Your task to perform on an android device: change the clock display to digital Image 0: 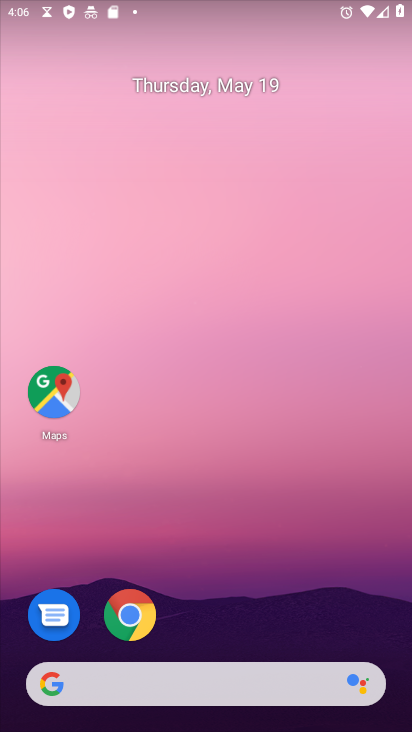
Step 0: drag from (255, 690) to (408, 504)
Your task to perform on an android device: change the clock display to digital Image 1: 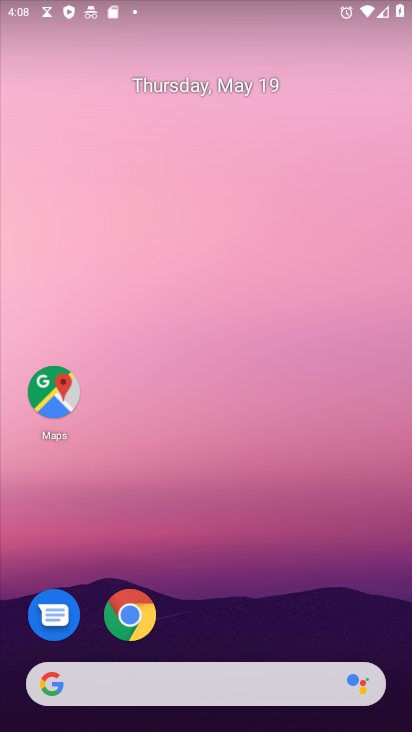
Step 1: drag from (240, 445) to (190, 22)
Your task to perform on an android device: change the clock display to digital Image 2: 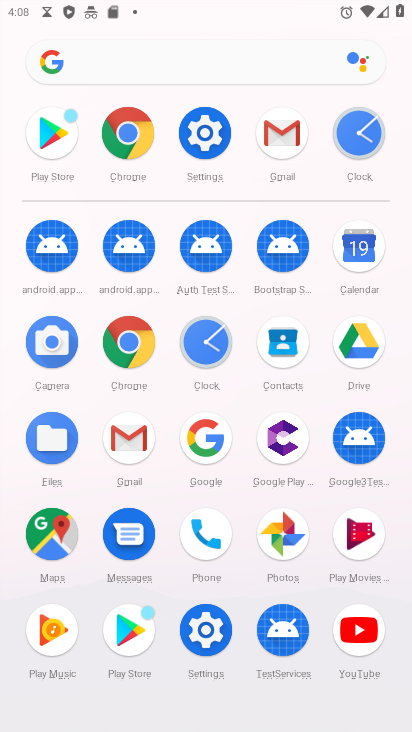
Step 2: click (352, 131)
Your task to perform on an android device: change the clock display to digital Image 3: 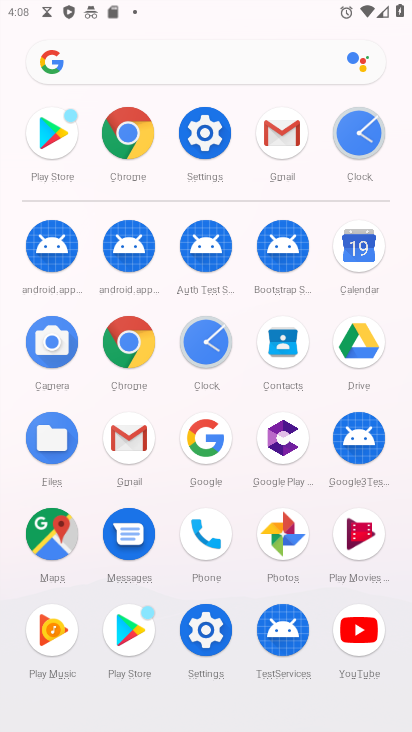
Step 3: click (351, 132)
Your task to perform on an android device: change the clock display to digital Image 4: 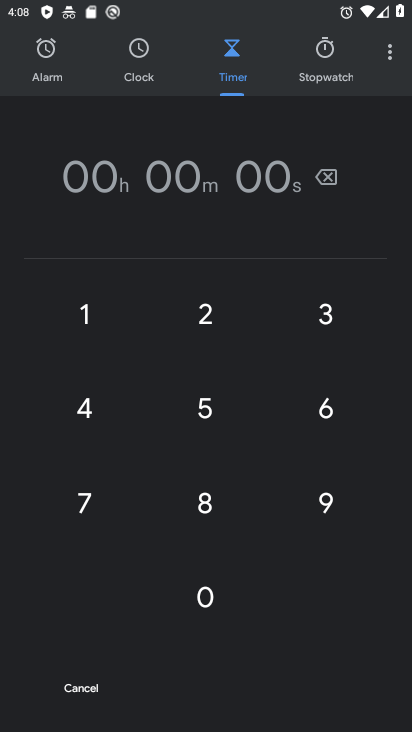
Step 4: click (391, 54)
Your task to perform on an android device: change the clock display to digital Image 5: 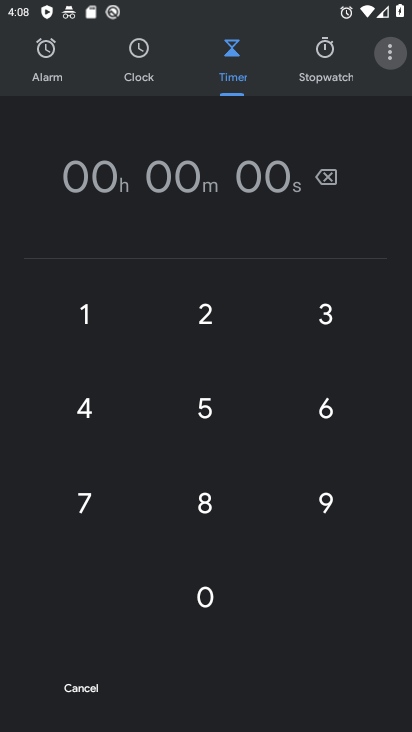
Step 5: click (394, 56)
Your task to perform on an android device: change the clock display to digital Image 6: 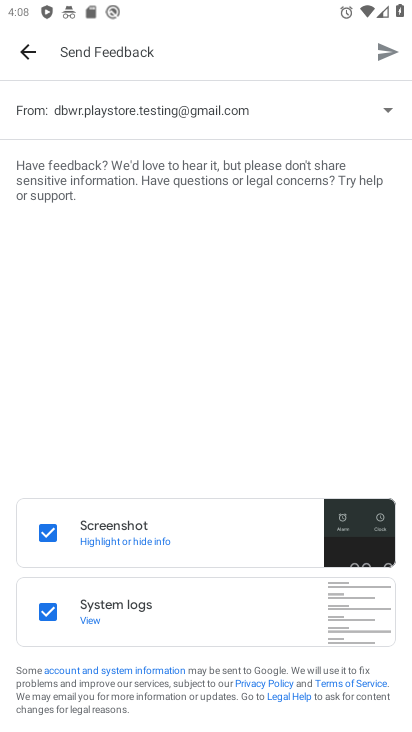
Step 6: click (23, 44)
Your task to perform on an android device: change the clock display to digital Image 7: 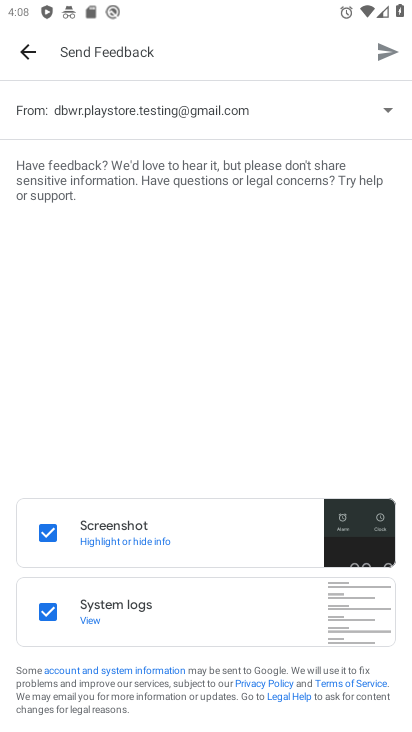
Step 7: click (23, 44)
Your task to perform on an android device: change the clock display to digital Image 8: 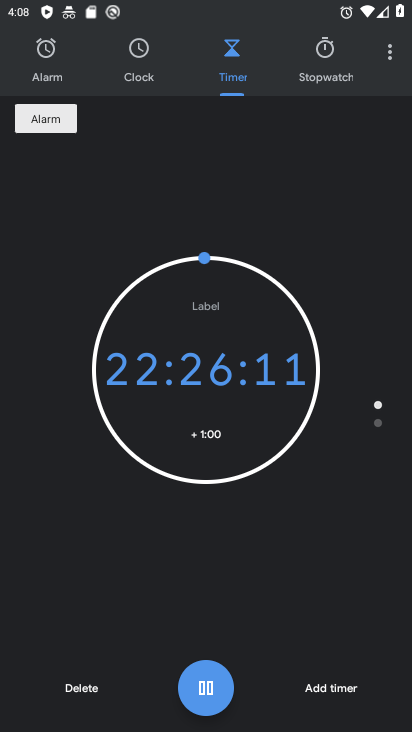
Step 8: click (386, 54)
Your task to perform on an android device: change the clock display to digital Image 9: 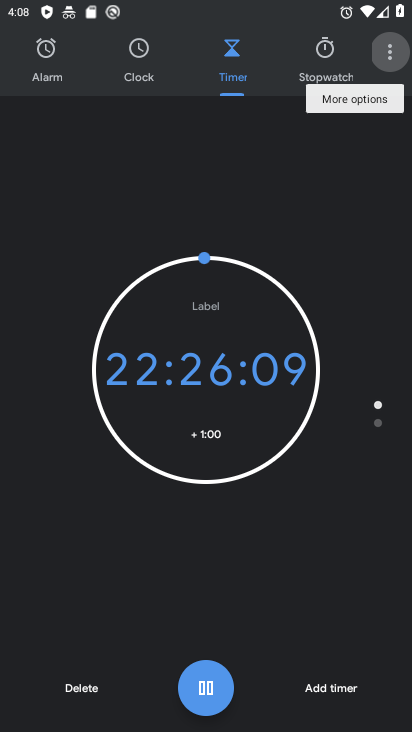
Step 9: click (386, 54)
Your task to perform on an android device: change the clock display to digital Image 10: 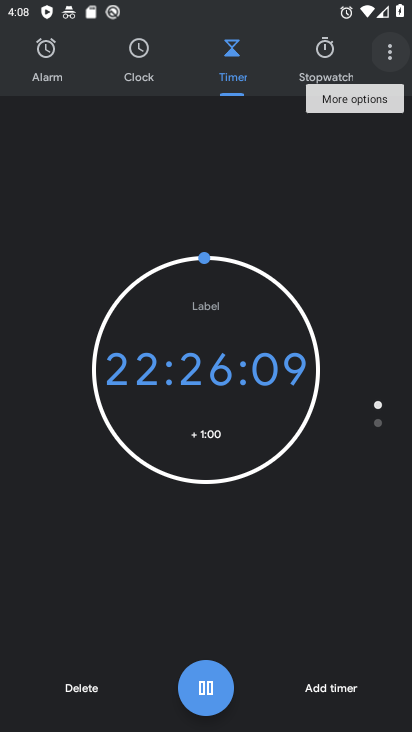
Step 10: click (386, 54)
Your task to perform on an android device: change the clock display to digital Image 11: 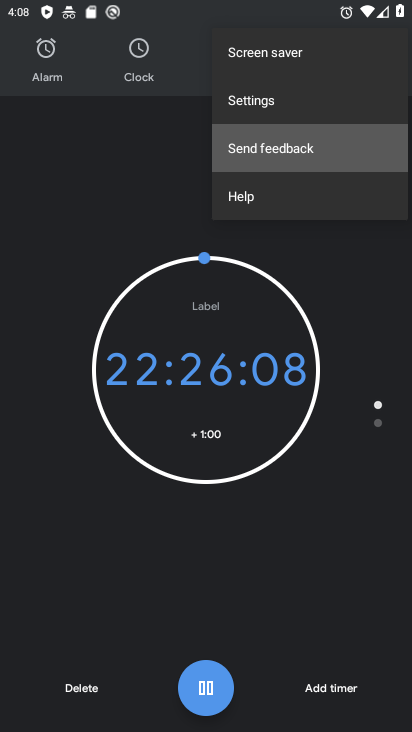
Step 11: click (386, 54)
Your task to perform on an android device: change the clock display to digital Image 12: 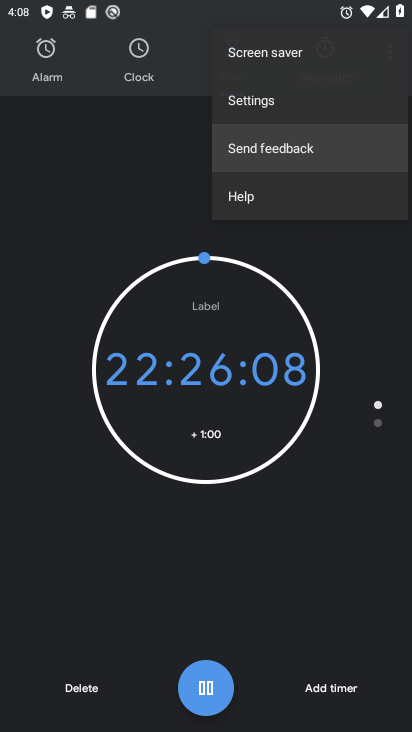
Step 12: drag from (369, 71) to (262, 116)
Your task to perform on an android device: change the clock display to digital Image 13: 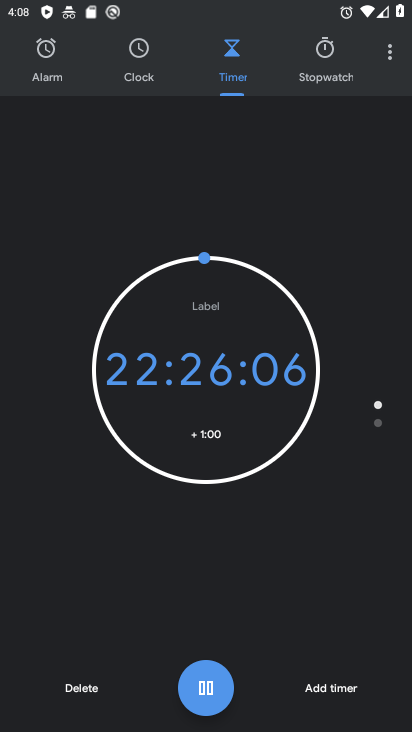
Step 13: click (380, 51)
Your task to perform on an android device: change the clock display to digital Image 14: 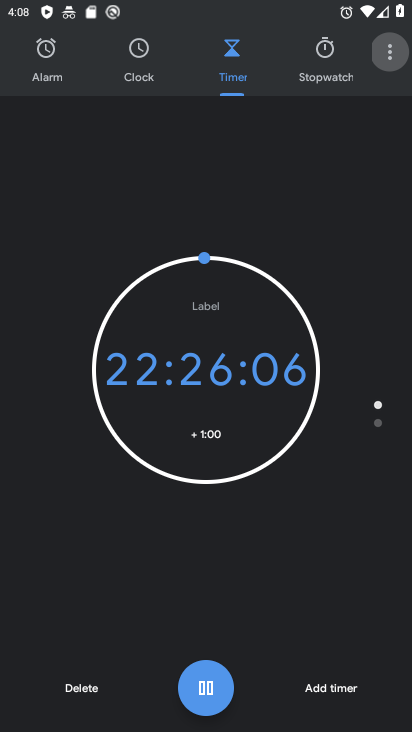
Step 14: click (380, 51)
Your task to perform on an android device: change the clock display to digital Image 15: 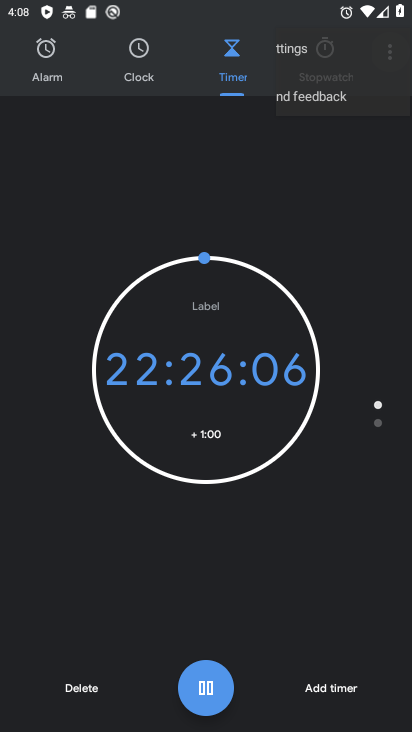
Step 15: click (382, 49)
Your task to perform on an android device: change the clock display to digital Image 16: 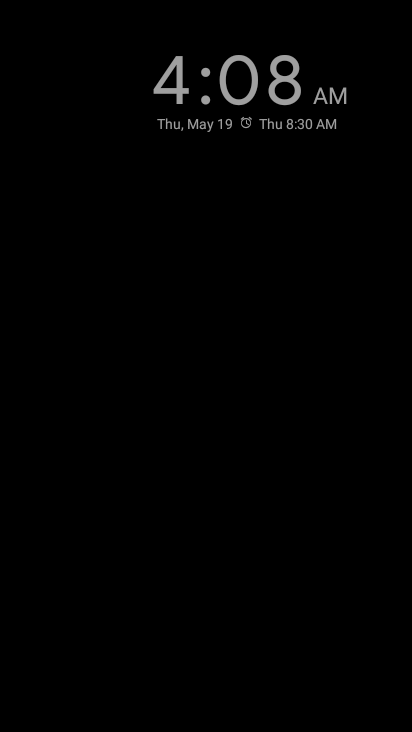
Step 16: press back button
Your task to perform on an android device: change the clock display to digital Image 17: 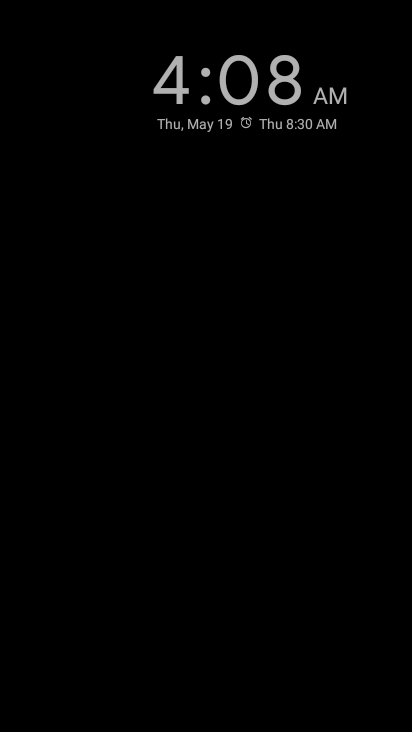
Step 17: press back button
Your task to perform on an android device: change the clock display to digital Image 18: 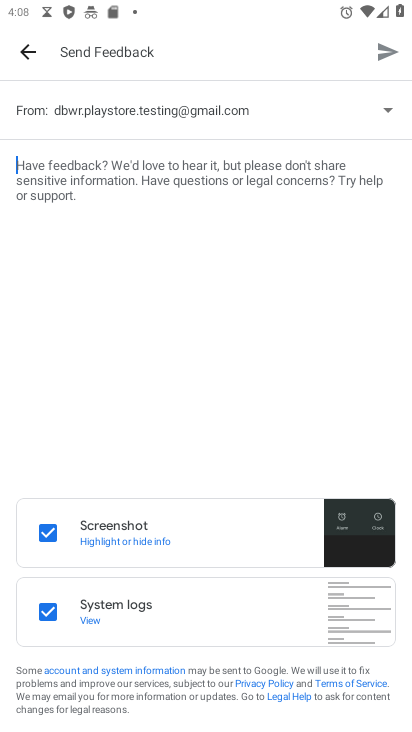
Step 18: click (20, 50)
Your task to perform on an android device: change the clock display to digital Image 19: 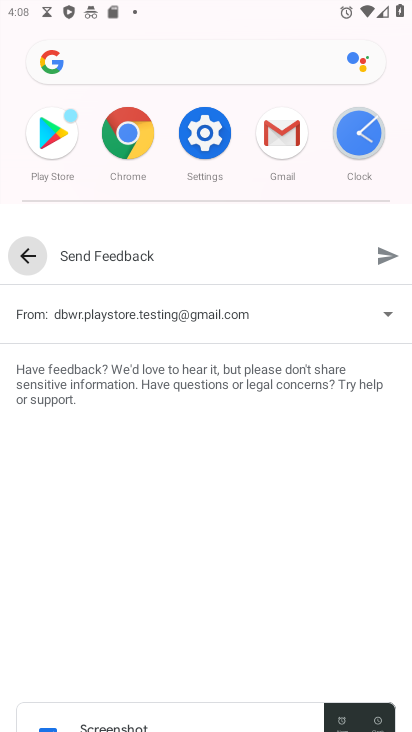
Step 19: click (25, 42)
Your task to perform on an android device: change the clock display to digital Image 20: 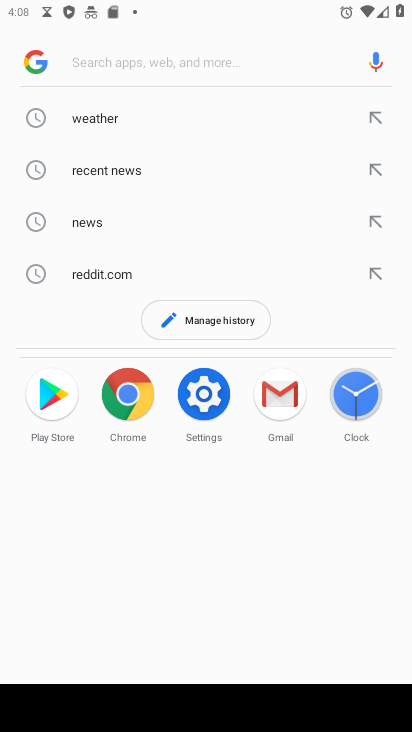
Step 20: click (347, 394)
Your task to perform on an android device: change the clock display to digital Image 21: 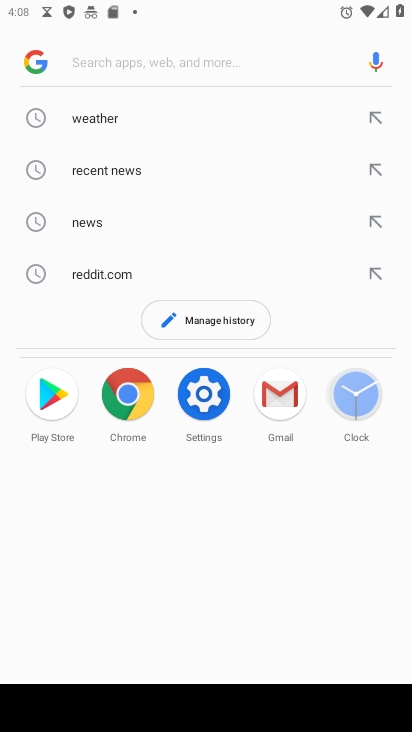
Step 21: click (349, 394)
Your task to perform on an android device: change the clock display to digital Image 22: 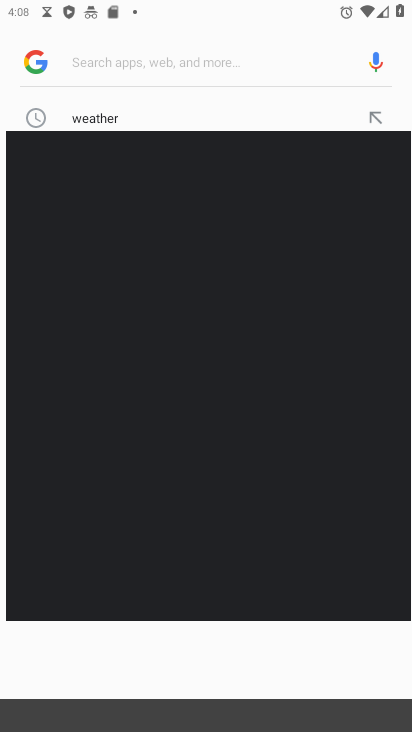
Step 22: click (349, 393)
Your task to perform on an android device: change the clock display to digital Image 23: 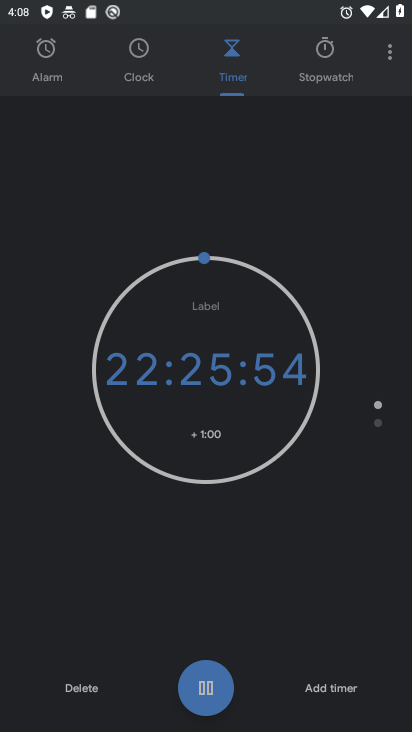
Step 23: click (350, 393)
Your task to perform on an android device: change the clock display to digital Image 24: 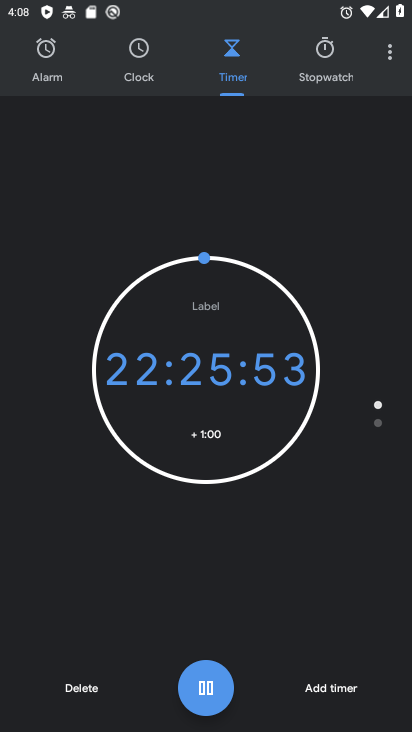
Step 24: click (390, 66)
Your task to perform on an android device: change the clock display to digital Image 25: 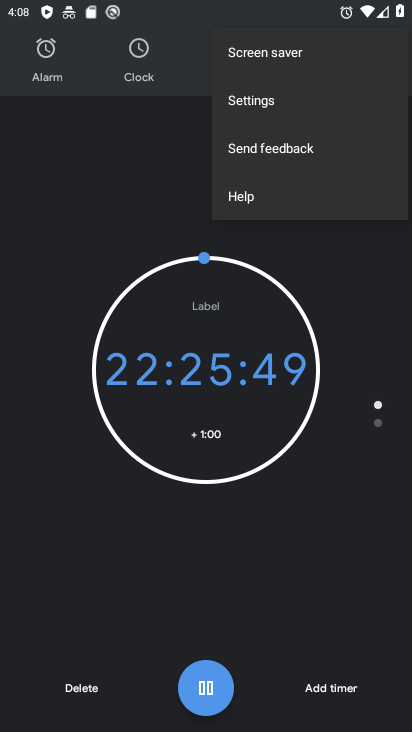
Step 25: click (260, 97)
Your task to perform on an android device: change the clock display to digital Image 26: 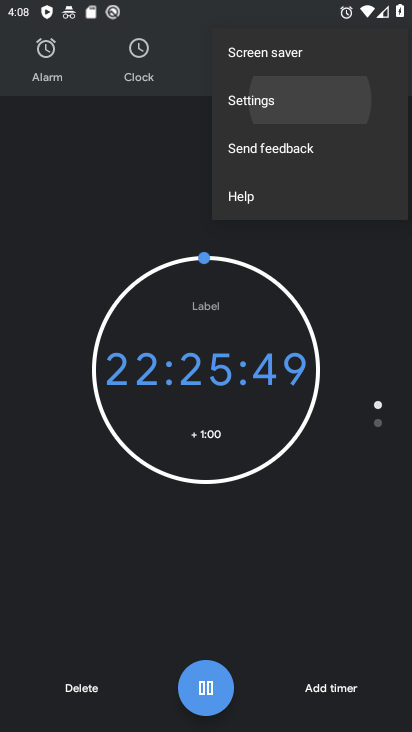
Step 26: click (260, 97)
Your task to perform on an android device: change the clock display to digital Image 27: 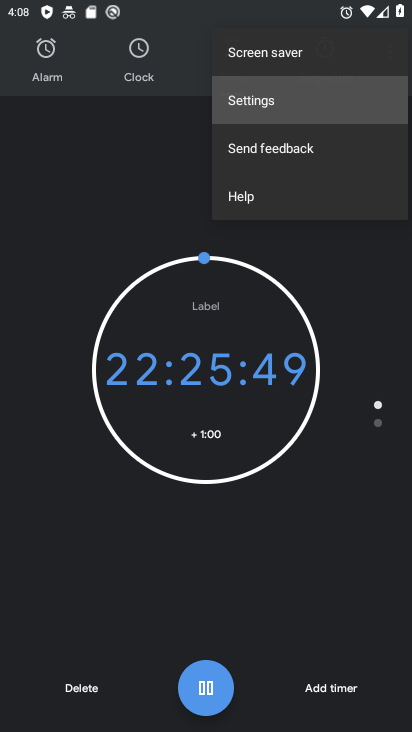
Step 27: click (260, 97)
Your task to perform on an android device: change the clock display to digital Image 28: 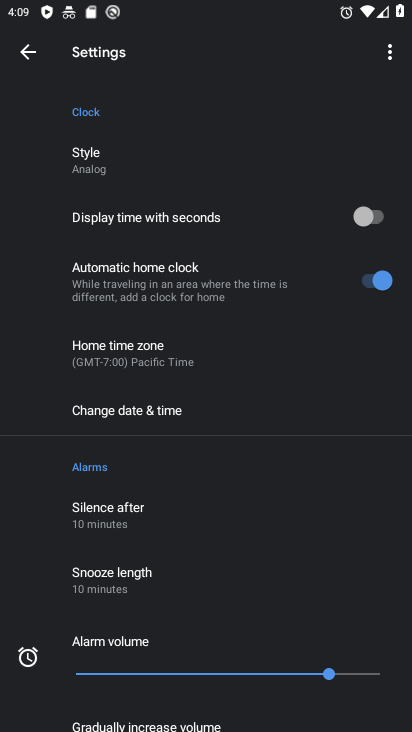
Step 28: click (156, 145)
Your task to perform on an android device: change the clock display to digital Image 29: 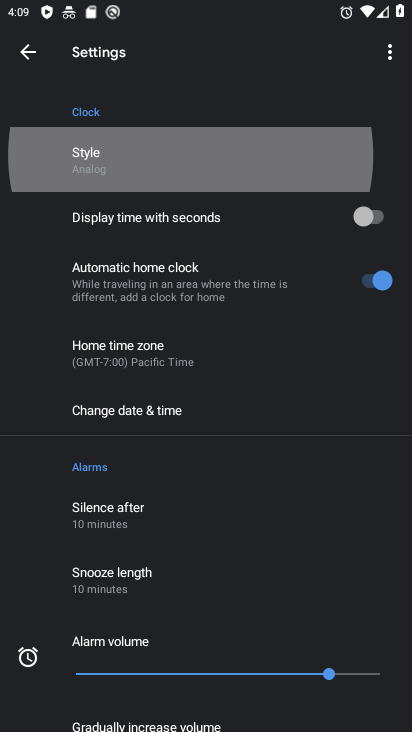
Step 29: click (156, 145)
Your task to perform on an android device: change the clock display to digital Image 30: 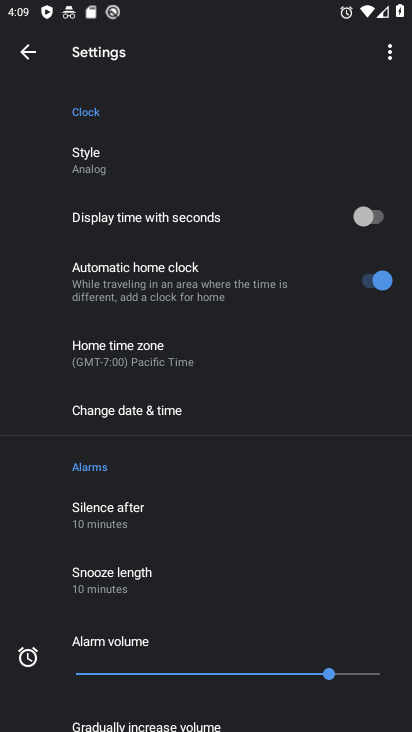
Step 30: click (153, 155)
Your task to perform on an android device: change the clock display to digital Image 31: 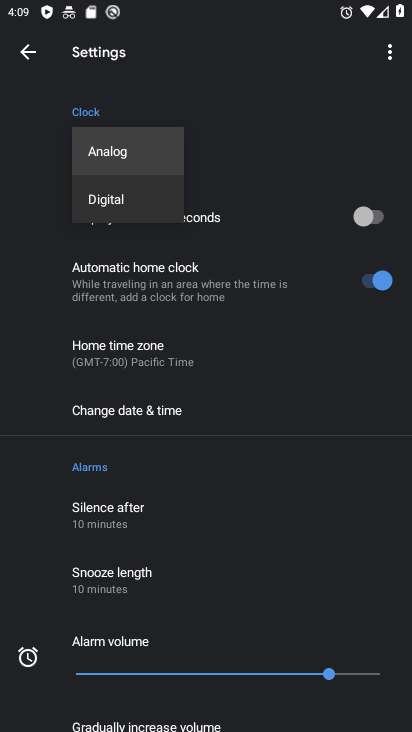
Step 31: click (120, 205)
Your task to perform on an android device: change the clock display to digital Image 32: 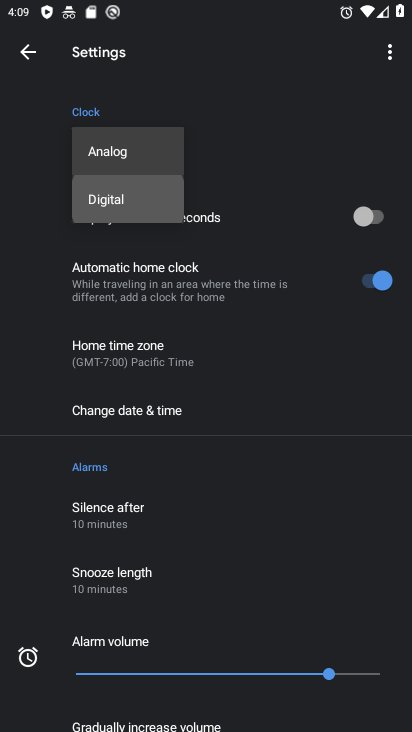
Step 32: click (118, 208)
Your task to perform on an android device: change the clock display to digital Image 33: 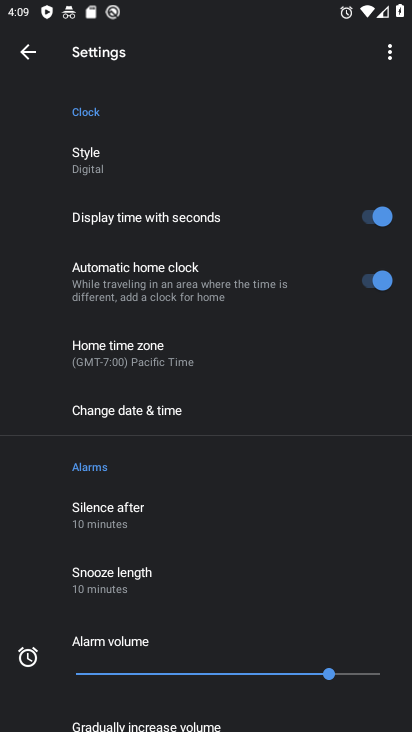
Step 33: task complete